Your task to perform on an android device: stop showing notifications on the lock screen Image 0: 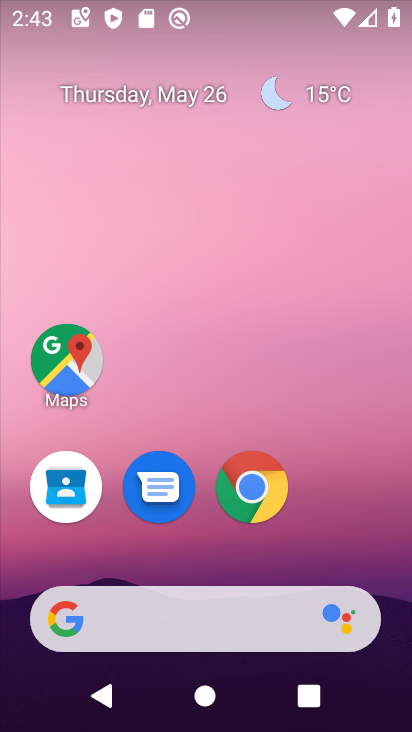
Step 0: drag from (216, 557) to (276, 110)
Your task to perform on an android device: stop showing notifications on the lock screen Image 1: 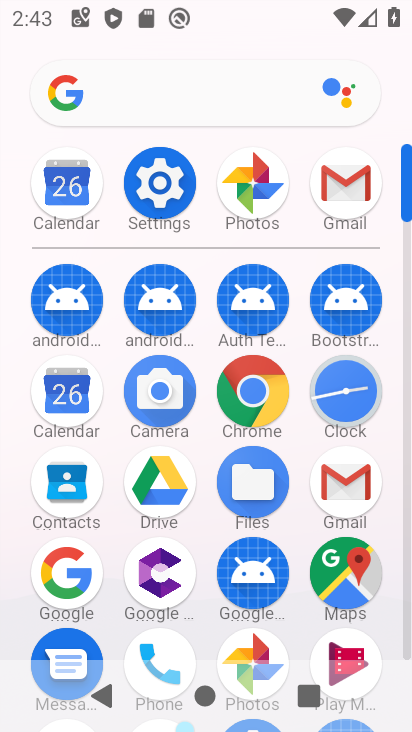
Step 1: click (178, 181)
Your task to perform on an android device: stop showing notifications on the lock screen Image 2: 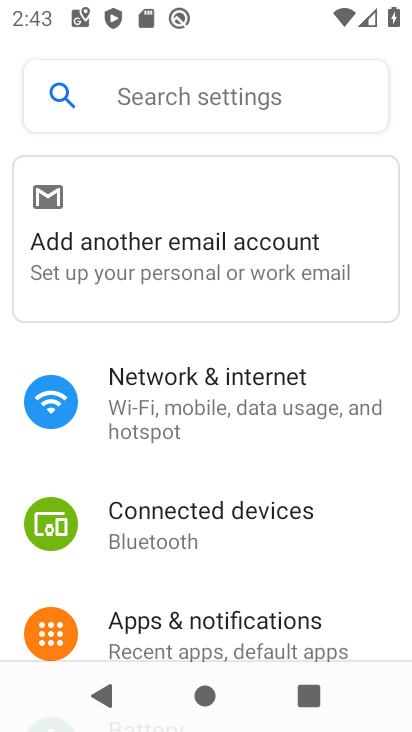
Step 2: drag from (225, 612) to (259, 385)
Your task to perform on an android device: stop showing notifications on the lock screen Image 3: 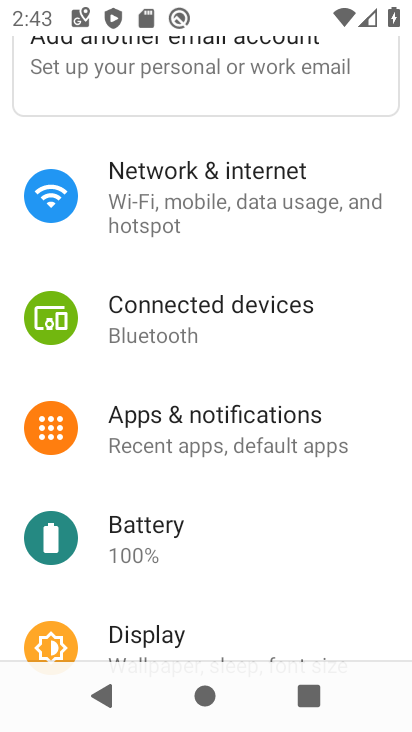
Step 3: click (241, 412)
Your task to perform on an android device: stop showing notifications on the lock screen Image 4: 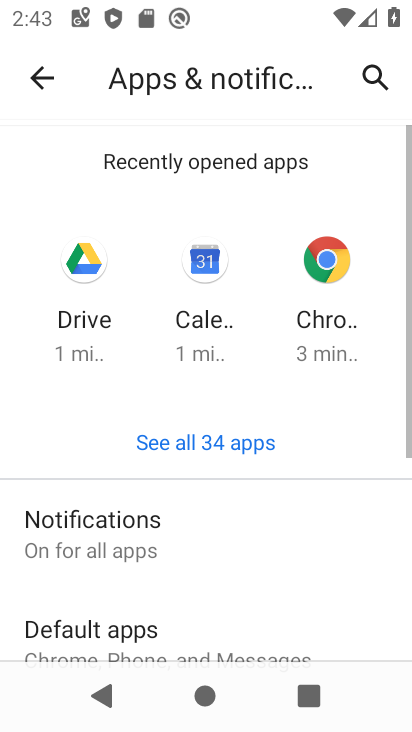
Step 4: click (229, 516)
Your task to perform on an android device: stop showing notifications on the lock screen Image 5: 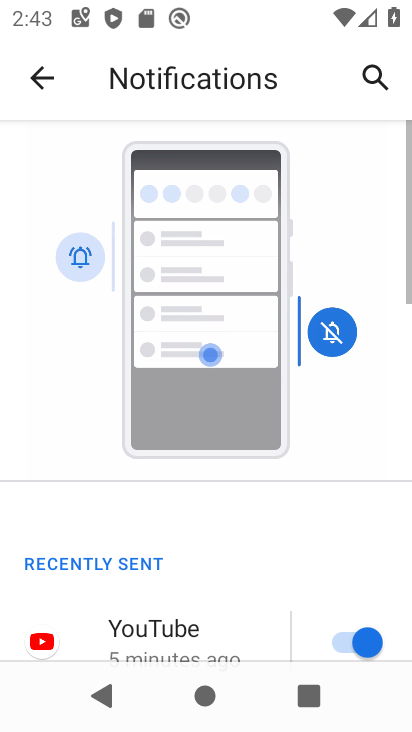
Step 5: drag from (253, 584) to (281, 187)
Your task to perform on an android device: stop showing notifications on the lock screen Image 6: 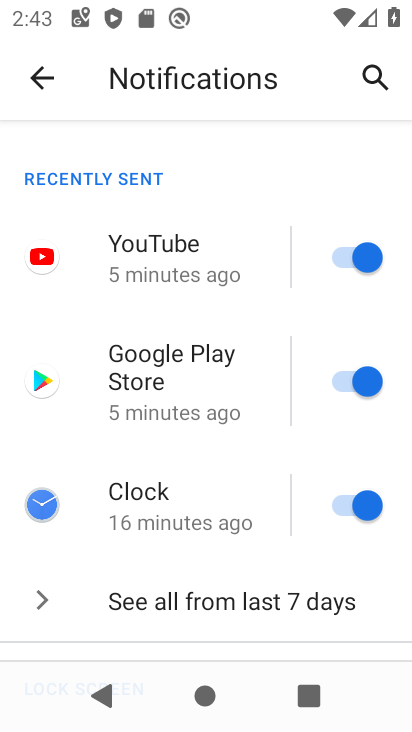
Step 6: drag from (244, 519) to (295, 192)
Your task to perform on an android device: stop showing notifications on the lock screen Image 7: 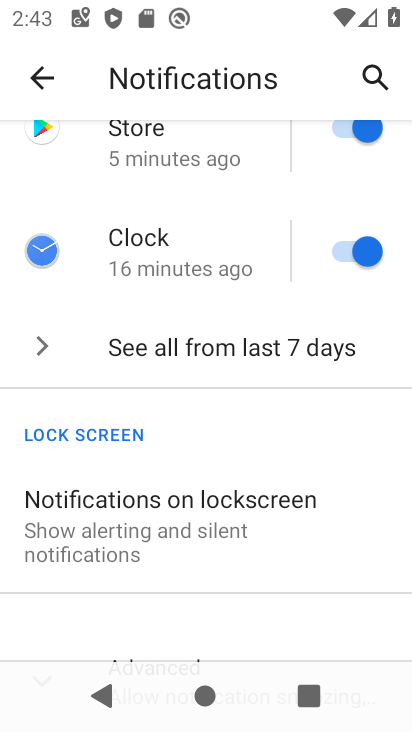
Step 7: click (265, 487)
Your task to perform on an android device: stop showing notifications on the lock screen Image 8: 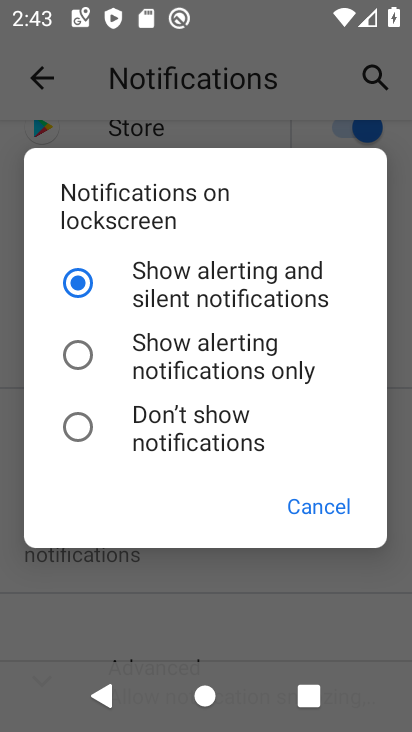
Step 8: click (163, 437)
Your task to perform on an android device: stop showing notifications on the lock screen Image 9: 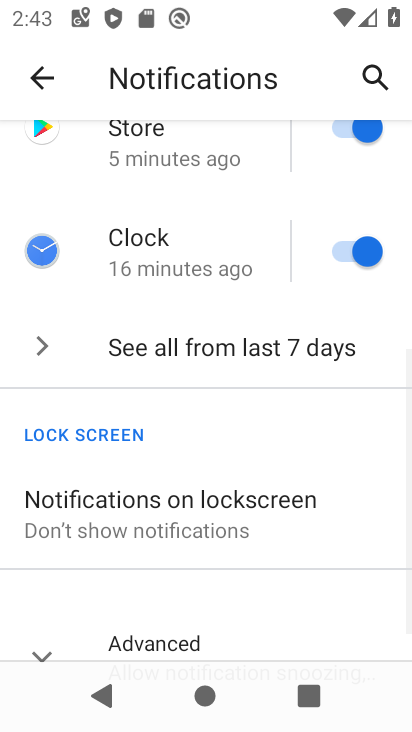
Step 9: task complete